Your task to perform on an android device: Go to location settings Image 0: 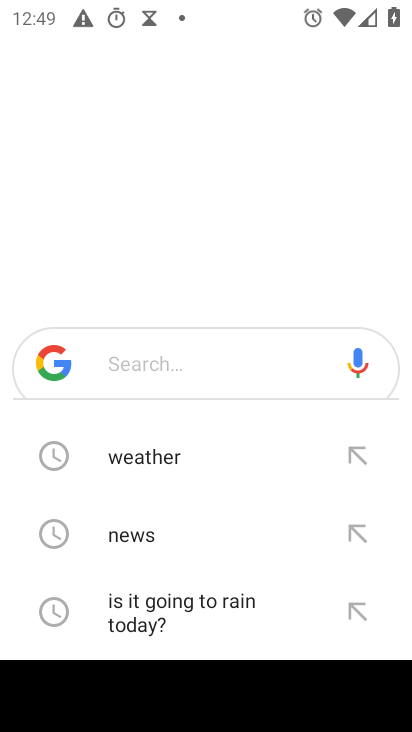
Step 0: press home button
Your task to perform on an android device: Go to location settings Image 1: 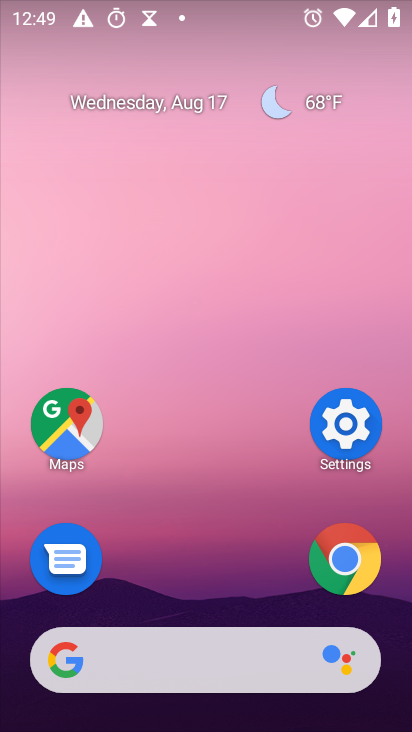
Step 1: click (356, 432)
Your task to perform on an android device: Go to location settings Image 2: 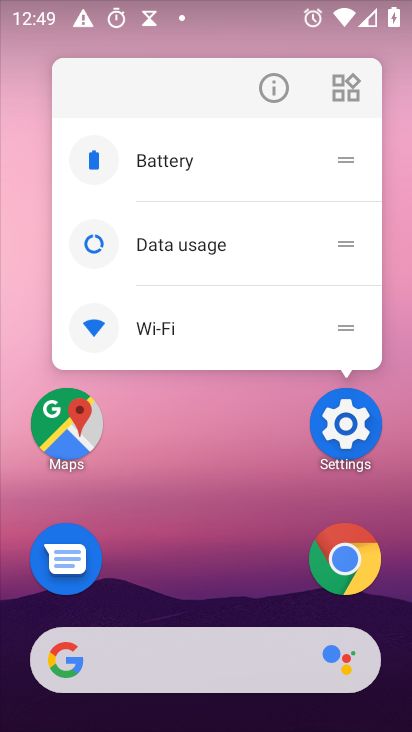
Step 2: click (343, 422)
Your task to perform on an android device: Go to location settings Image 3: 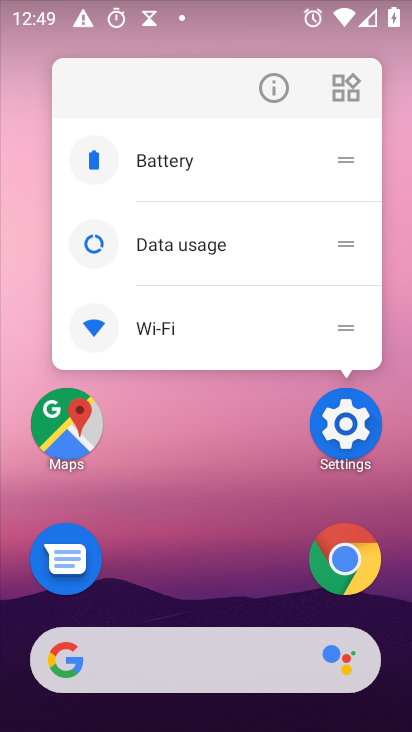
Step 3: click (342, 419)
Your task to perform on an android device: Go to location settings Image 4: 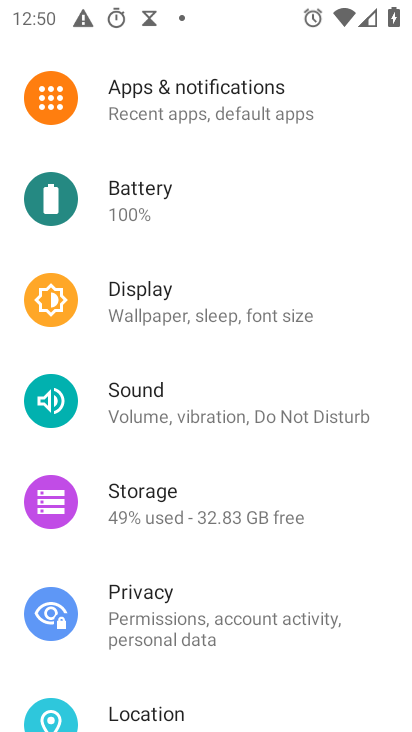
Step 4: drag from (266, 682) to (381, 84)
Your task to perform on an android device: Go to location settings Image 5: 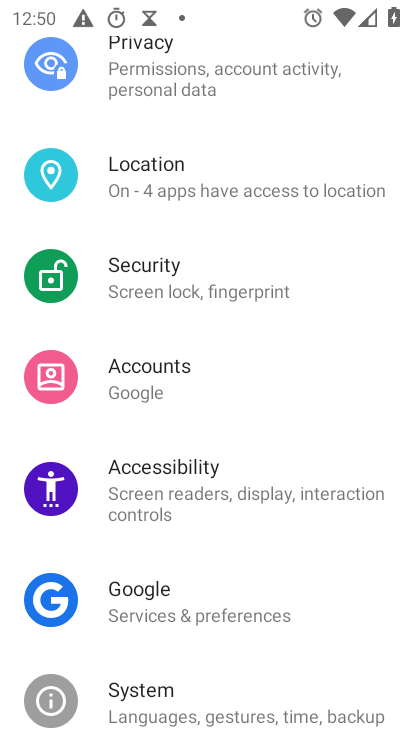
Step 5: click (170, 180)
Your task to perform on an android device: Go to location settings Image 6: 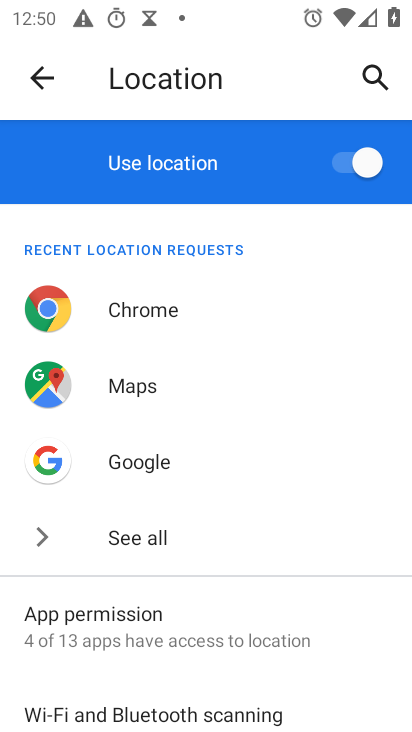
Step 6: task complete